Your task to perform on an android device: open chrome privacy settings Image 0: 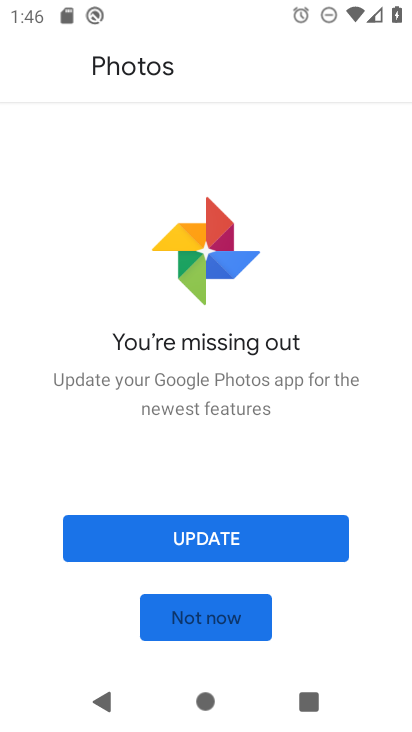
Step 0: press home button
Your task to perform on an android device: open chrome privacy settings Image 1: 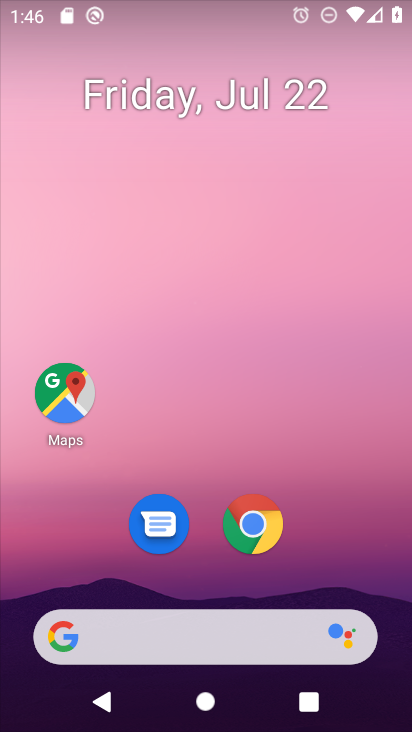
Step 1: click (257, 515)
Your task to perform on an android device: open chrome privacy settings Image 2: 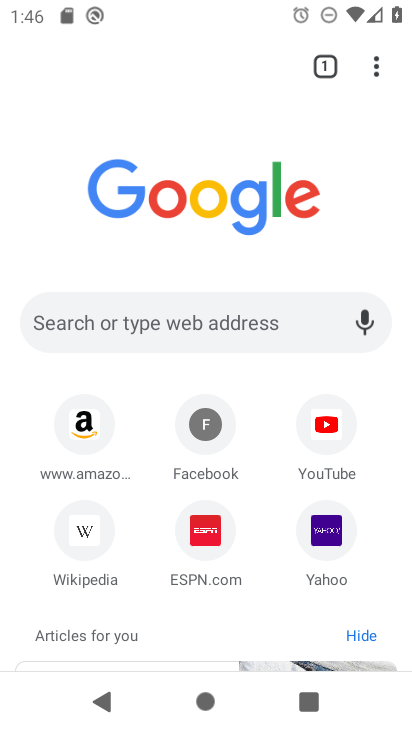
Step 2: click (372, 72)
Your task to perform on an android device: open chrome privacy settings Image 3: 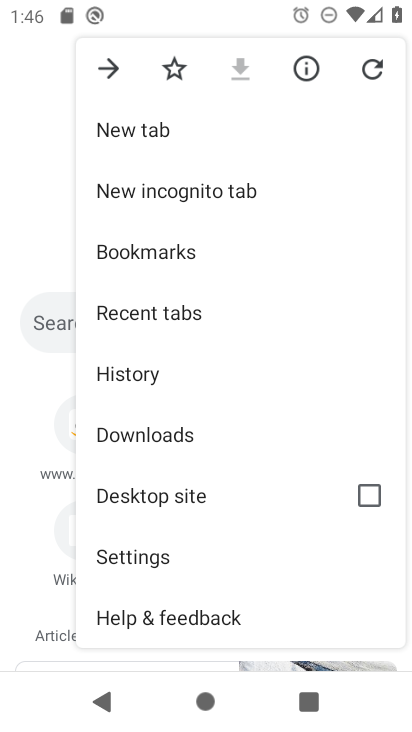
Step 3: click (183, 549)
Your task to perform on an android device: open chrome privacy settings Image 4: 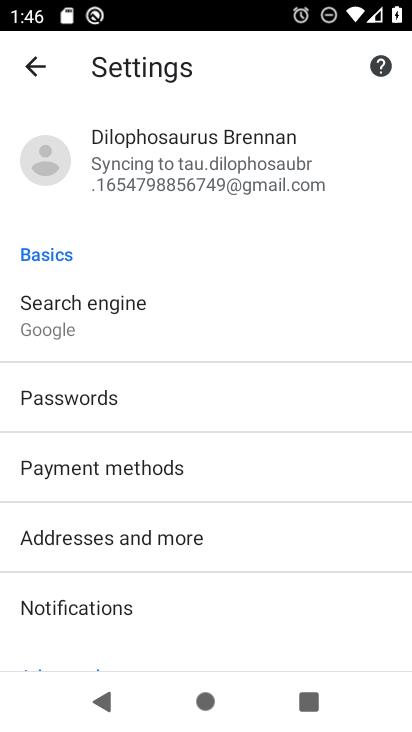
Step 4: drag from (183, 554) to (193, 219)
Your task to perform on an android device: open chrome privacy settings Image 5: 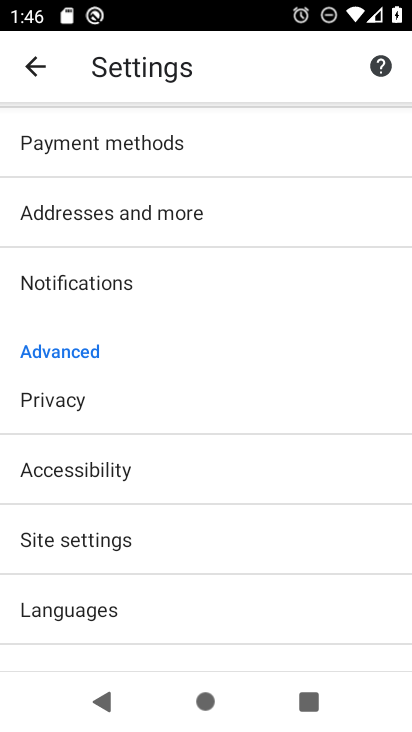
Step 5: click (124, 534)
Your task to perform on an android device: open chrome privacy settings Image 6: 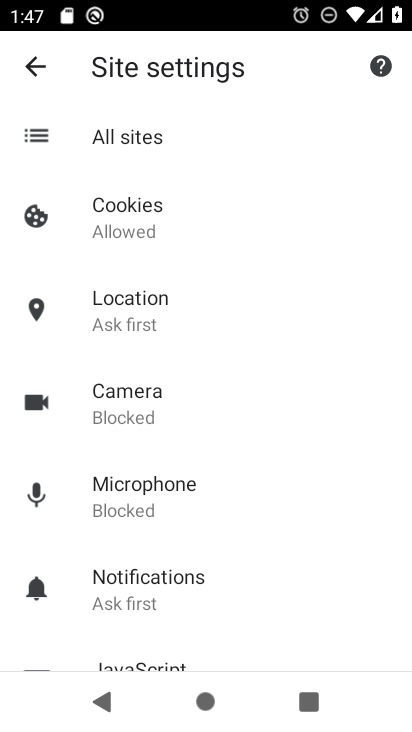
Step 6: click (36, 61)
Your task to perform on an android device: open chrome privacy settings Image 7: 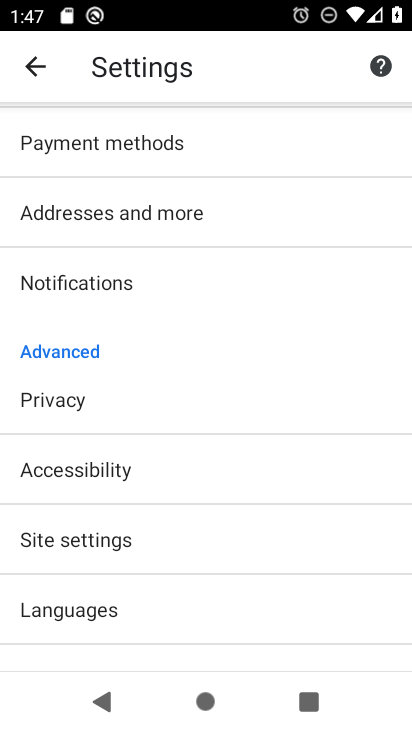
Step 7: click (64, 397)
Your task to perform on an android device: open chrome privacy settings Image 8: 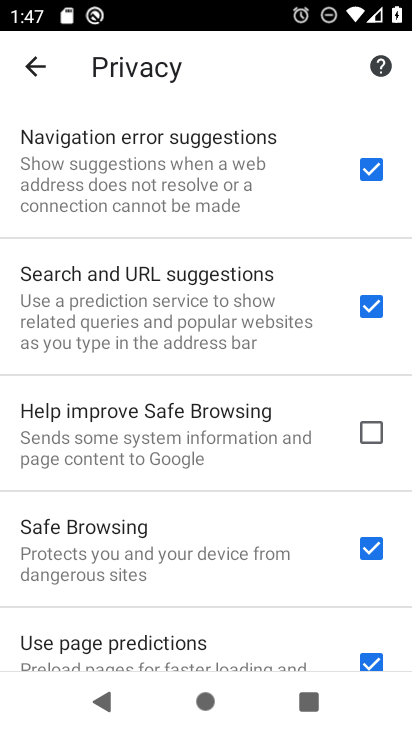
Step 8: task complete